Your task to perform on an android device: check android version Image 0: 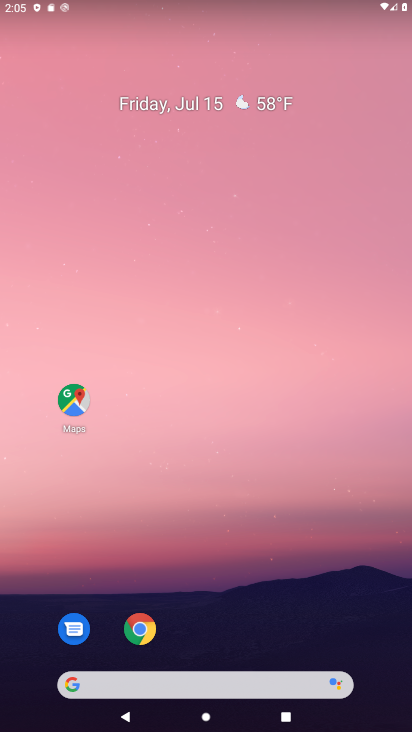
Step 0: drag from (279, 615) to (237, 43)
Your task to perform on an android device: check android version Image 1: 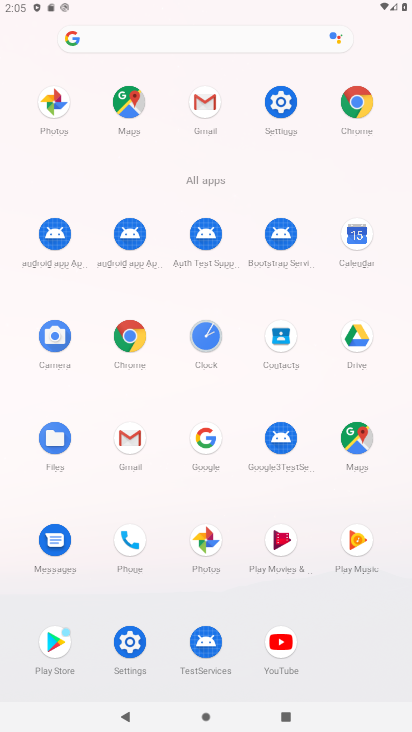
Step 1: click (281, 110)
Your task to perform on an android device: check android version Image 2: 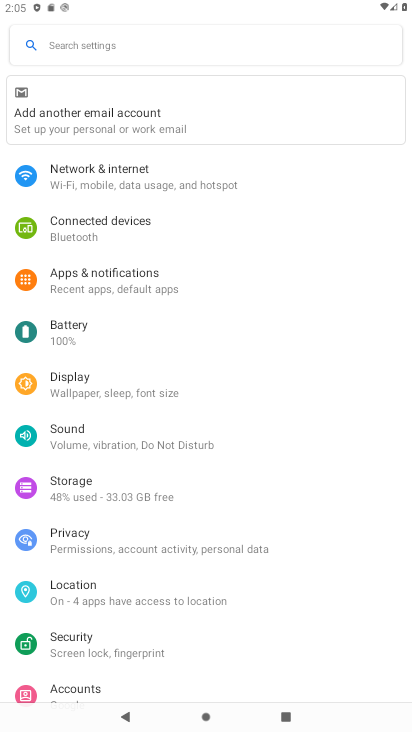
Step 2: drag from (285, 654) to (230, 172)
Your task to perform on an android device: check android version Image 3: 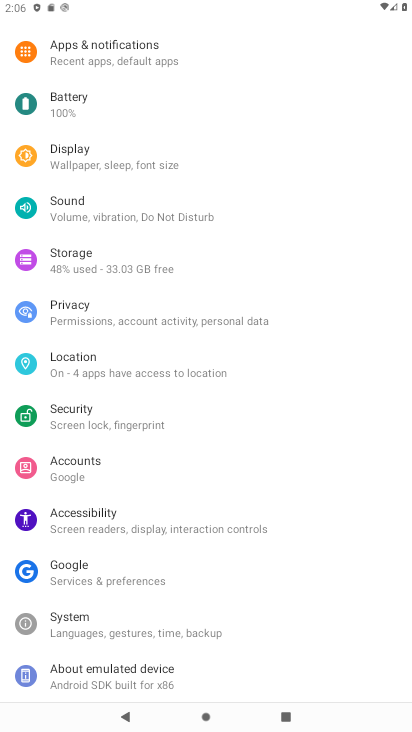
Step 3: click (224, 680)
Your task to perform on an android device: check android version Image 4: 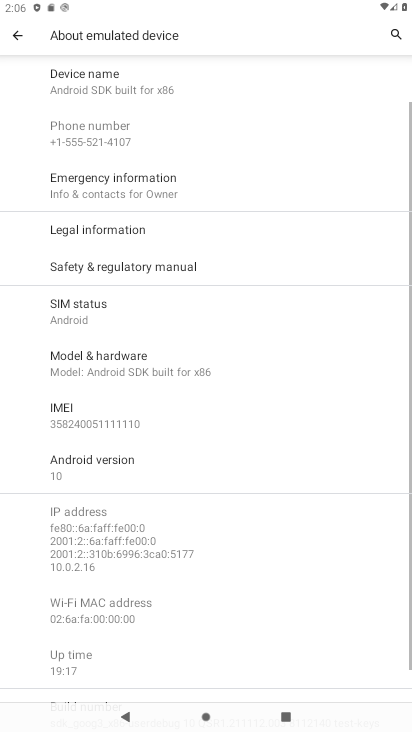
Step 4: click (199, 475)
Your task to perform on an android device: check android version Image 5: 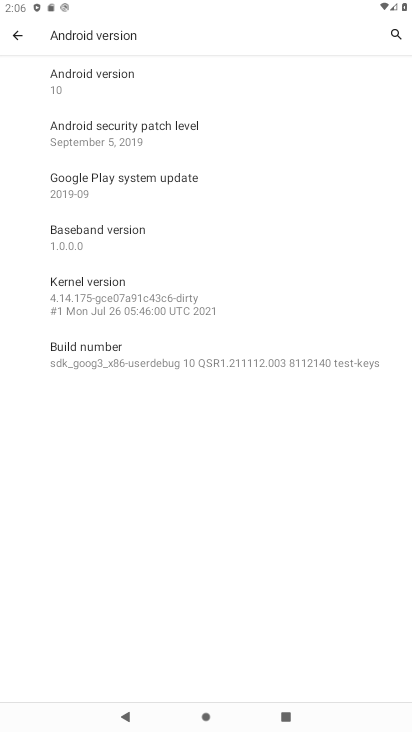
Step 5: task complete